Your task to perform on an android device: Open Google Chrome Image 0: 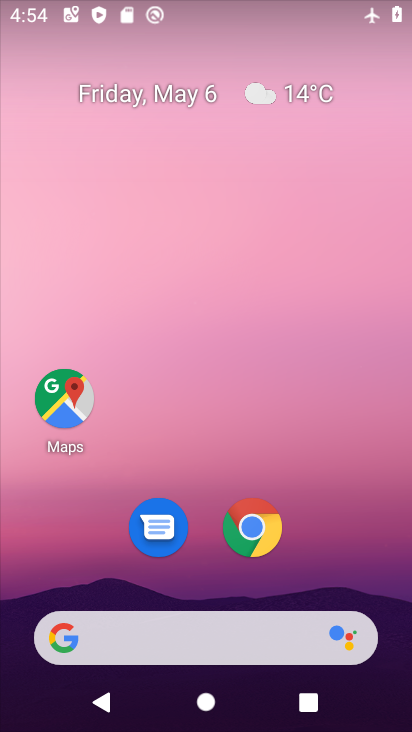
Step 0: click (255, 522)
Your task to perform on an android device: Open Google Chrome Image 1: 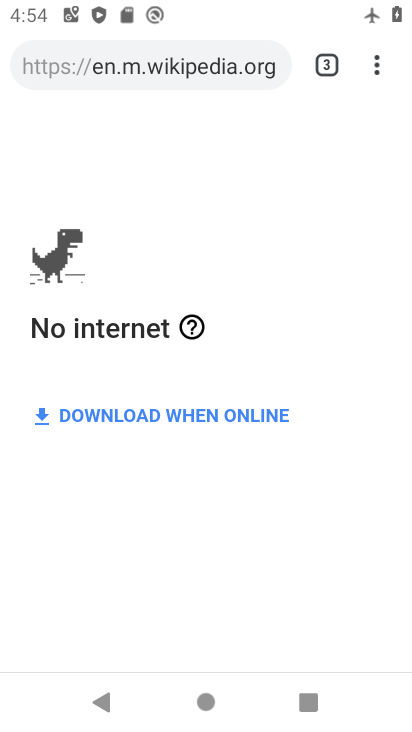
Step 1: task complete